Your task to perform on an android device: Open calendar and show me the first week of next month Image 0: 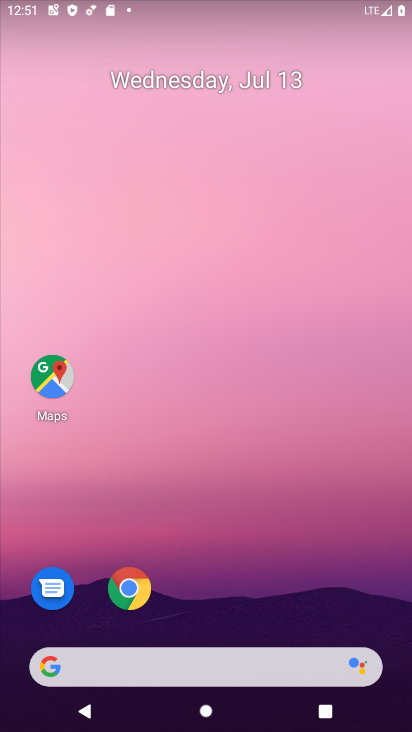
Step 0: drag from (395, 689) to (361, 201)
Your task to perform on an android device: Open calendar and show me the first week of next month Image 1: 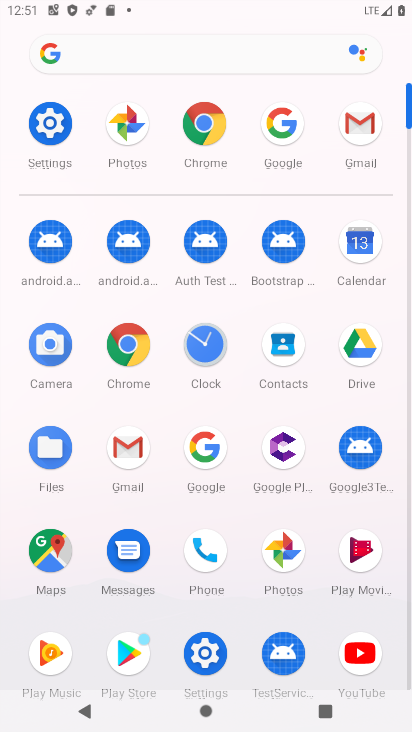
Step 1: click (367, 239)
Your task to perform on an android device: Open calendar and show me the first week of next month Image 2: 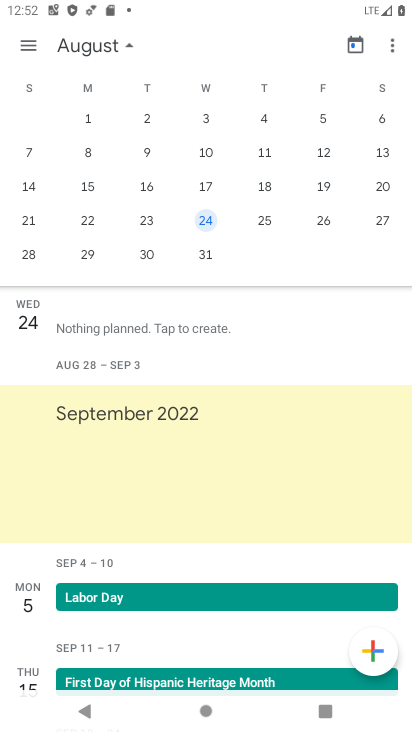
Step 2: click (65, 122)
Your task to perform on an android device: Open calendar and show me the first week of next month Image 3: 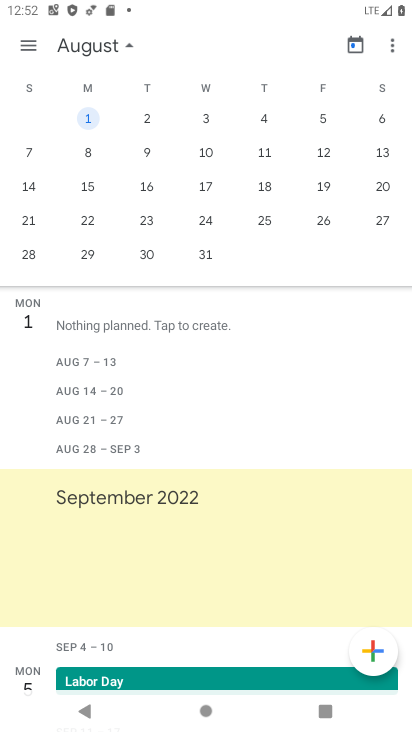
Step 3: click (37, 39)
Your task to perform on an android device: Open calendar and show me the first week of next month Image 4: 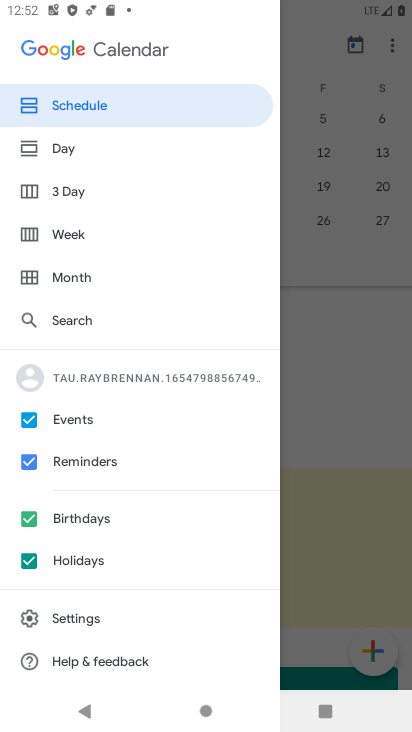
Step 4: click (55, 234)
Your task to perform on an android device: Open calendar and show me the first week of next month Image 5: 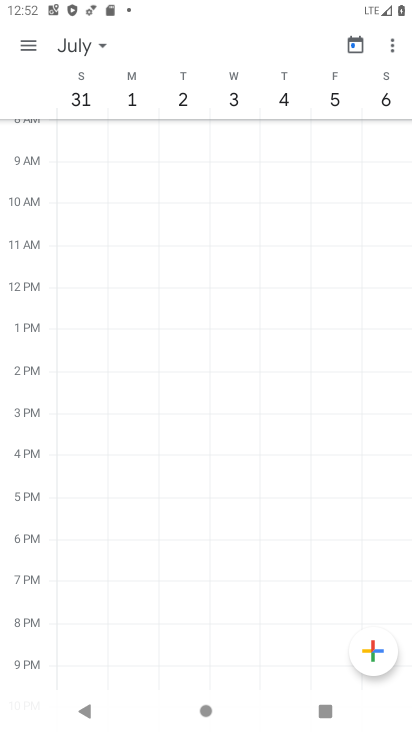
Step 5: task complete